Your task to perform on an android device: Search for pizza restaurants on Maps Image 0: 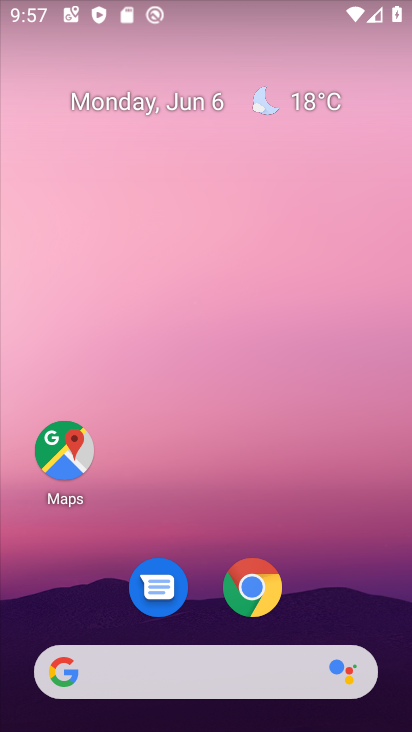
Step 0: click (70, 462)
Your task to perform on an android device: Search for pizza restaurants on Maps Image 1: 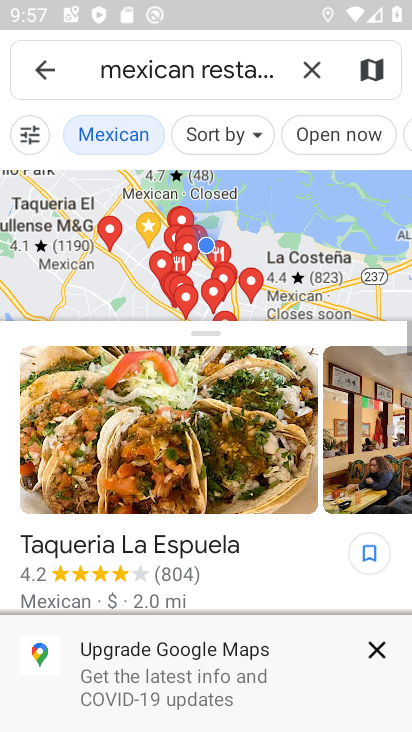
Step 1: click (312, 71)
Your task to perform on an android device: Search for pizza restaurants on Maps Image 2: 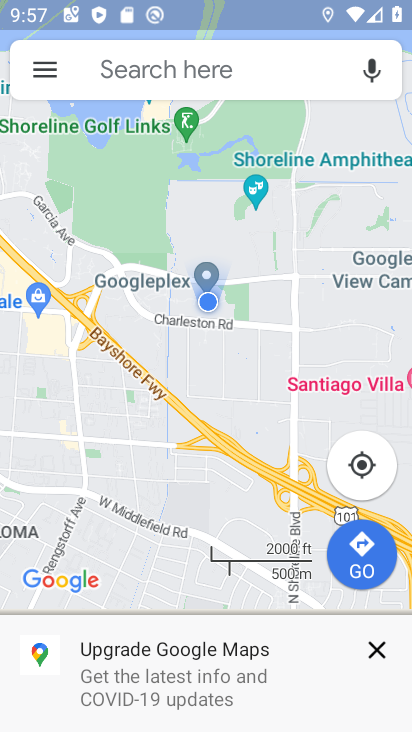
Step 2: click (247, 68)
Your task to perform on an android device: Search for pizza restaurants on Maps Image 3: 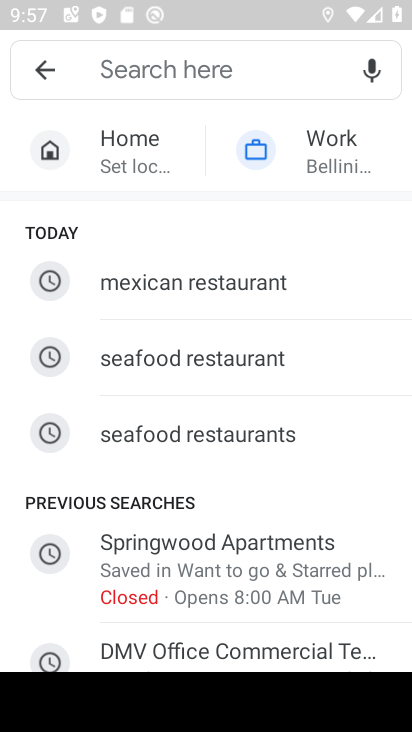
Step 3: type "pizza restaurant"
Your task to perform on an android device: Search for pizza restaurants on Maps Image 4: 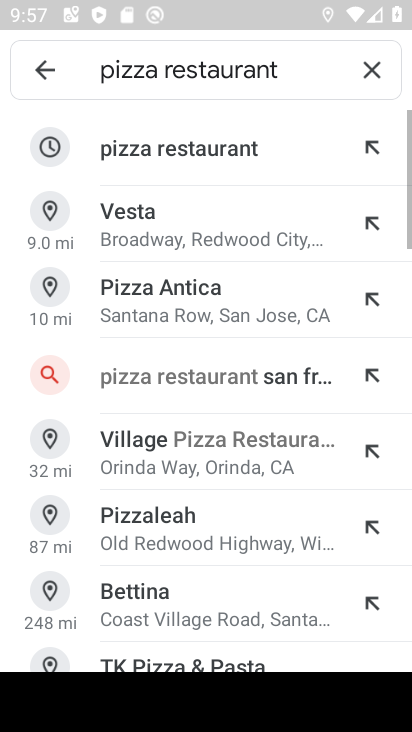
Step 4: click (221, 157)
Your task to perform on an android device: Search for pizza restaurants on Maps Image 5: 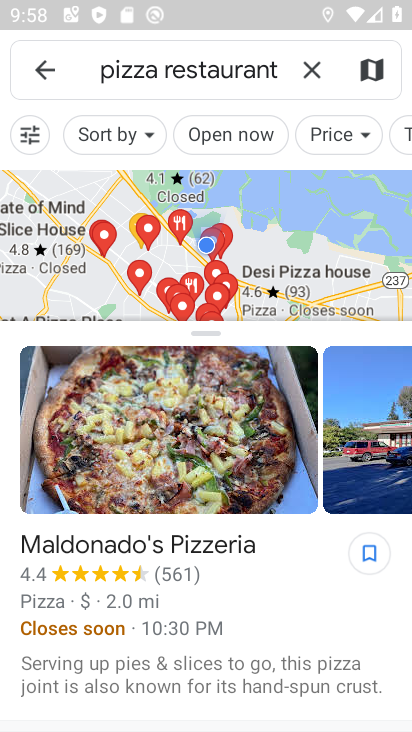
Step 5: task complete